Your task to perform on an android device: turn off notifications in google photos Image 0: 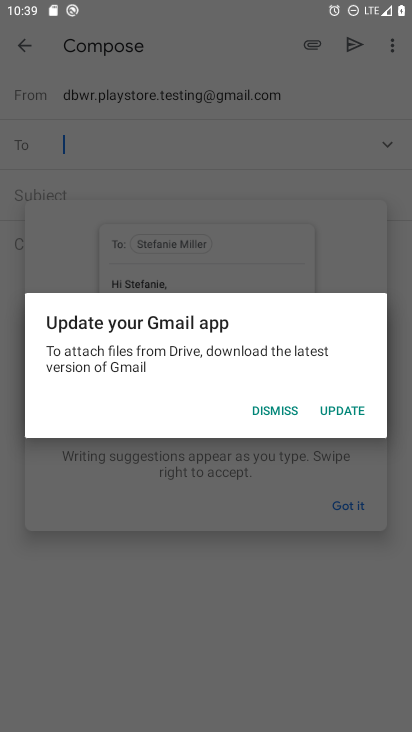
Step 0: press home button
Your task to perform on an android device: turn off notifications in google photos Image 1: 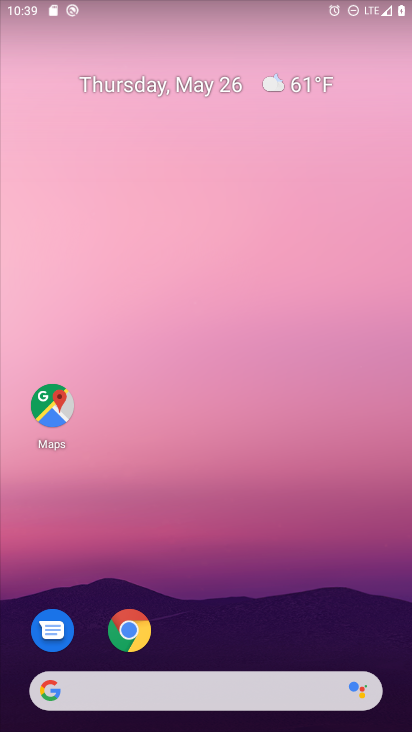
Step 1: drag from (216, 657) to (225, 4)
Your task to perform on an android device: turn off notifications in google photos Image 2: 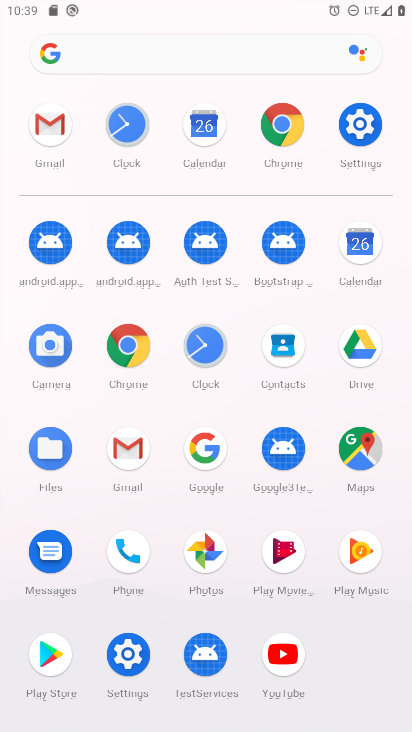
Step 2: click (191, 552)
Your task to perform on an android device: turn off notifications in google photos Image 3: 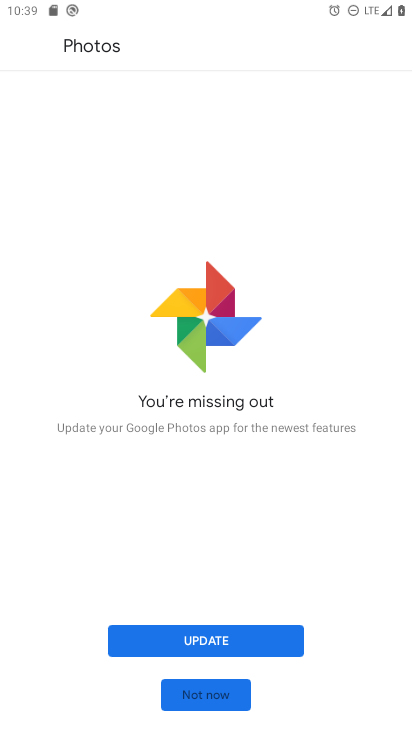
Step 3: click (226, 686)
Your task to perform on an android device: turn off notifications in google photos Image 4: 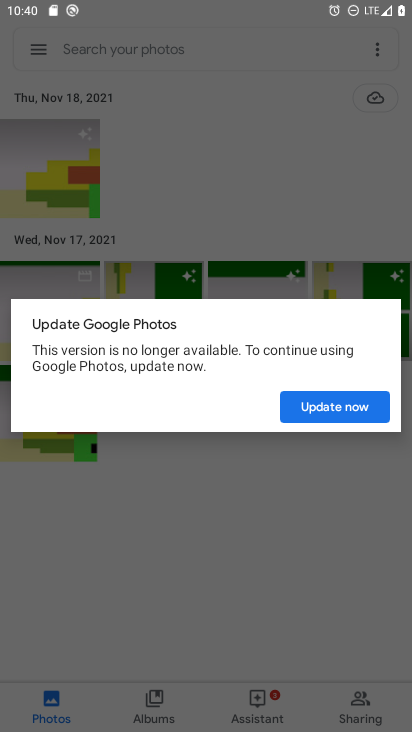
Step 4: click (331, 411)
Your task to perform on an android device: turn off notifications in google photos Image 5: 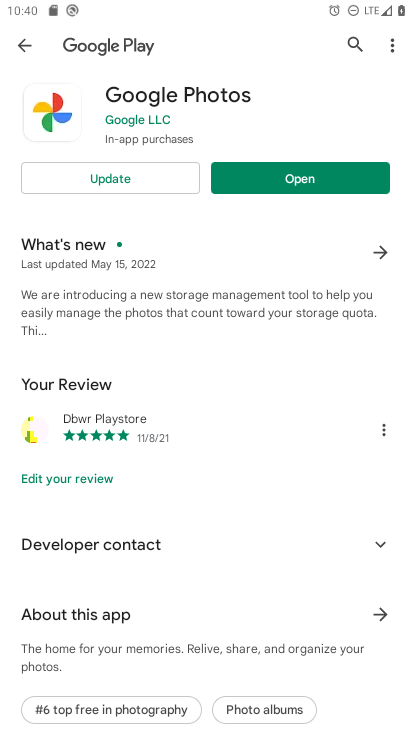
Step 5: click (281, 177)
Your task to perform on an android device: turn off notifications in google photos Image 6: 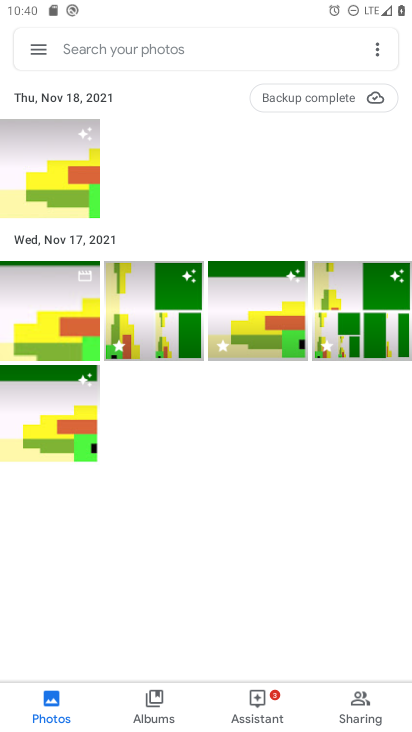
Step 6: click (40, 51)
Your task to perform on an android device: turn off notifications in google photos Image 7: 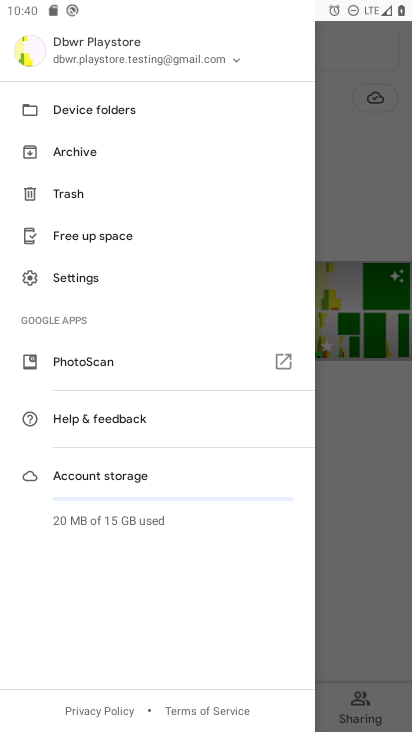
Step 7: click (86, 276)
Your task to perform on an android device: turn off notifications in google photos Image 8: 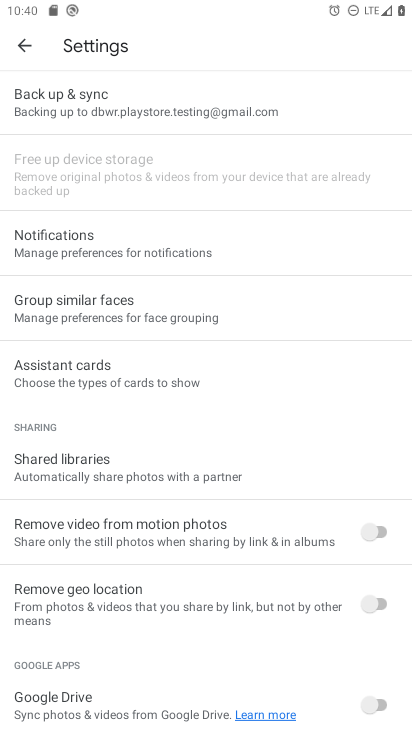
Step 8: click (87, 245)
Your task to perform on an android device: turn off notifications in google photos Image 9: 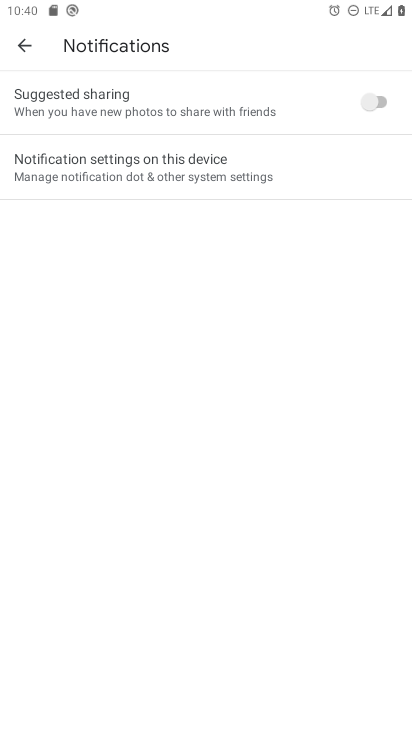
Step 9: click (84, 147)
Your task to perform on an android device: turn off notifications in google photos Image 10: 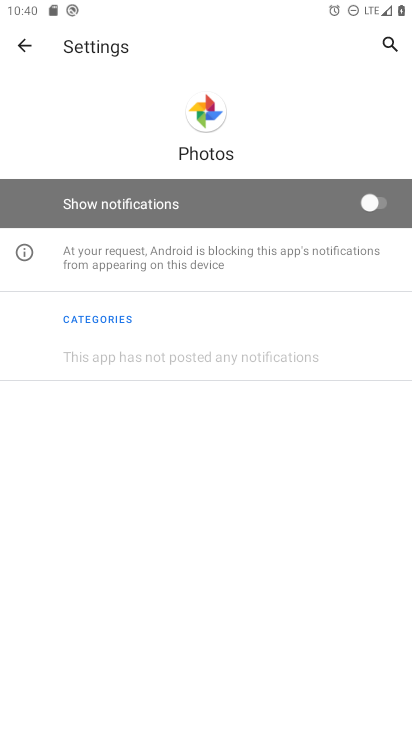
Step 10: task complete